Your task to perform on an android device: toggle improve location accuracy Image 0: 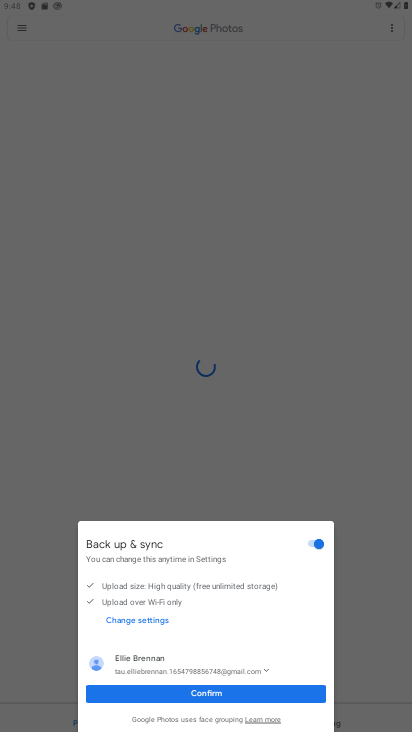
Step 0: click (217, 699)
Your task to perform on an android device: toggle improve location accuracy Image 1: 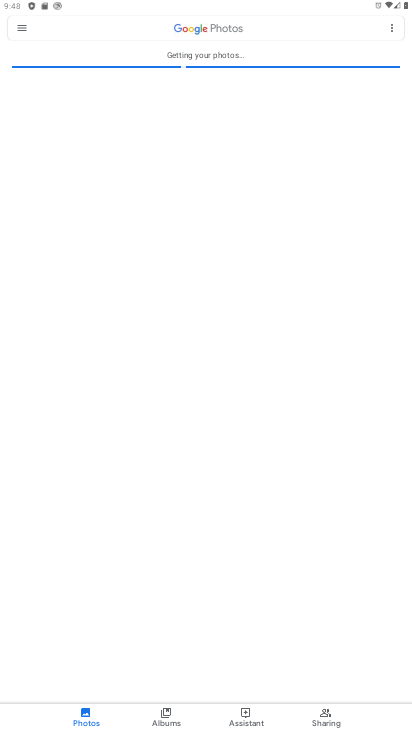
Step 1: press home button
Your task to perform on an android device: toggle improve location accuracy Image 2: 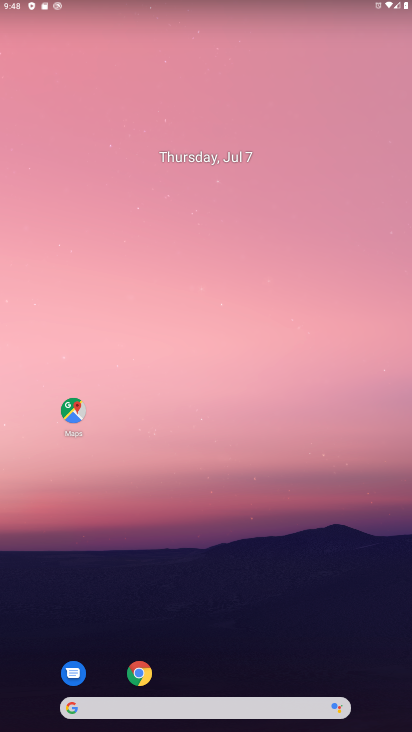
Step 2: drag from (223, 578) to (263, 17)
Your task to perform on an android device: toggle improve location accuracy Image 3: 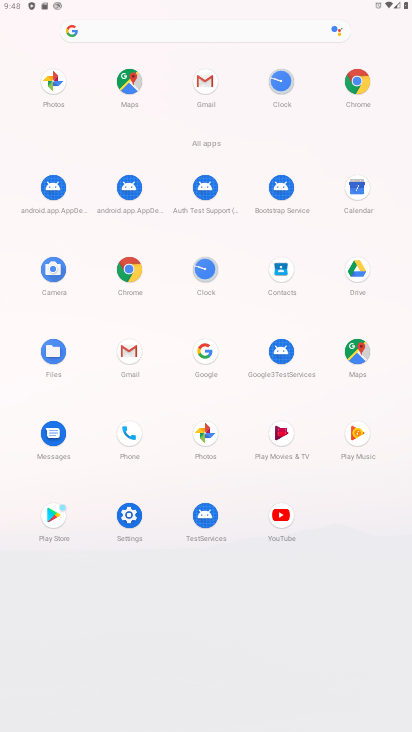
Step 3: click (130, 353)
Your task to perform on an android device: toggle improve location accuracy Image 4: 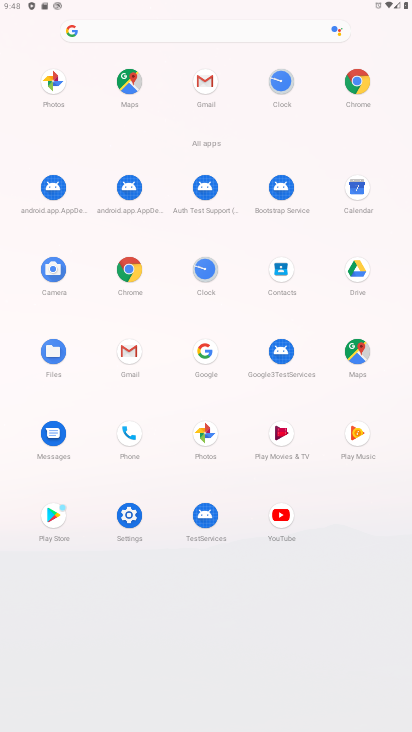
Step 4: press back button
Your task to perform on an android device: toggle improve location accuracy Image 5: 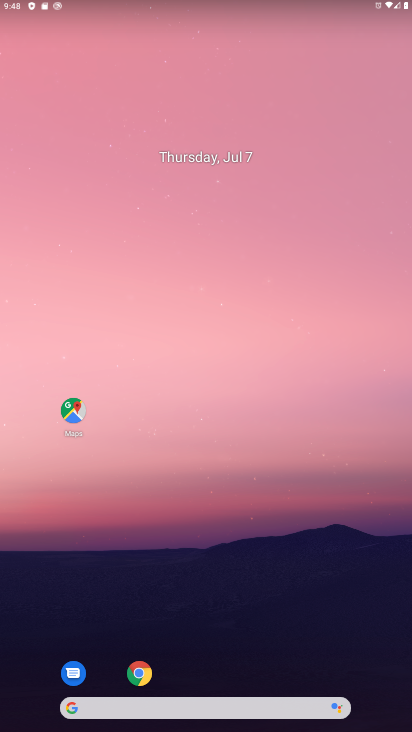
Step 5: drag from (192, 666) to (287, 12)
Your task to perform on an android device: toggle improve location accuracy Image 6: 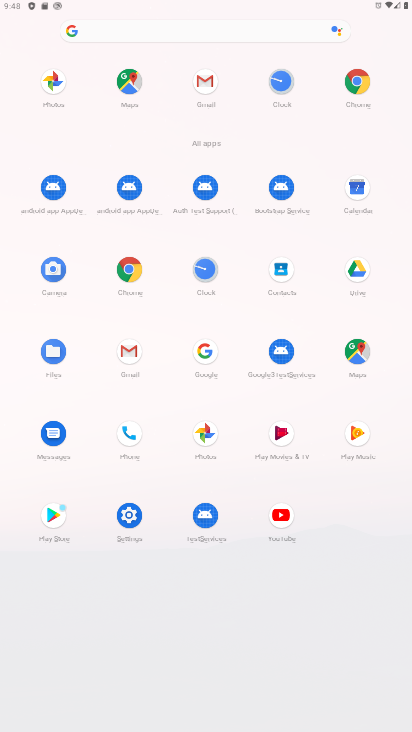
Step 6: click (128, 541)
Your task to perform on an android device: toggle improve location accuracy Image 7: 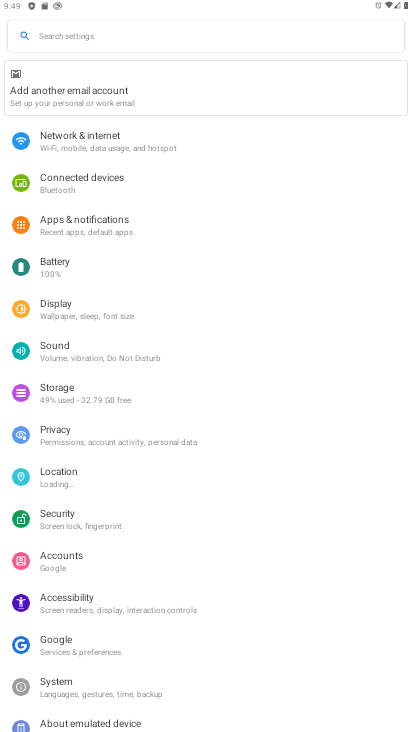
Step 7: click (79, 473)
Your task to perform on an android device: toggle improve location accuracy Image 8: 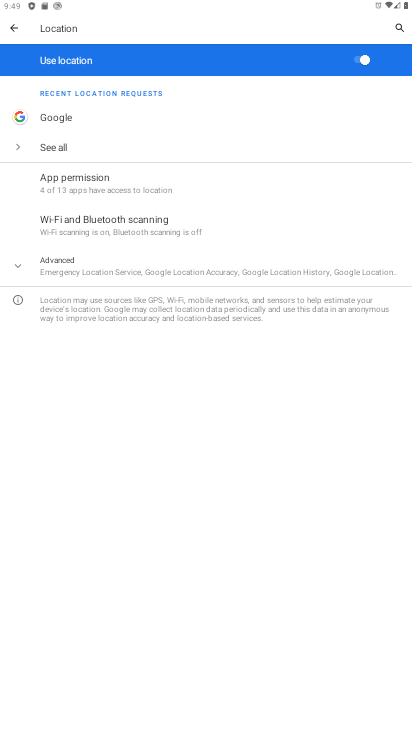
Step 8: click (127, 270)
Your task to perform on an android device: toggle improve location accuracy Image 9: 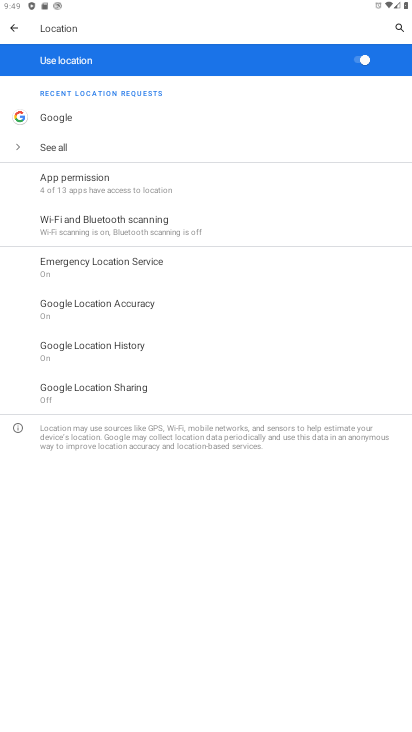
Step 9: click (110, 315)
Your task to perform on an android device: toggle improve location accuracy Image 10: 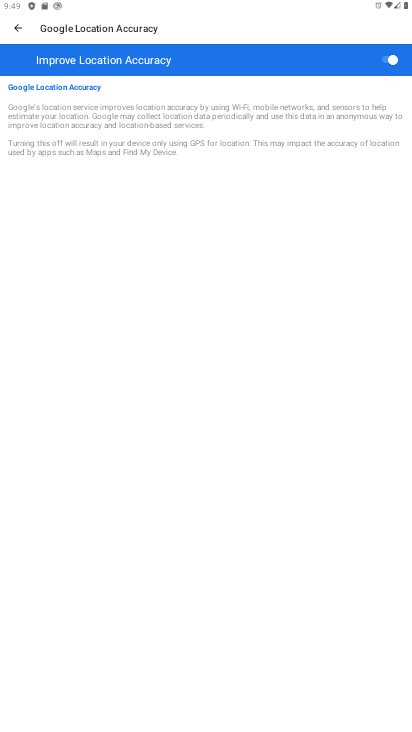
Step 10: task complete